Your task to perform on an android device: empty trash in google photos Image 0: 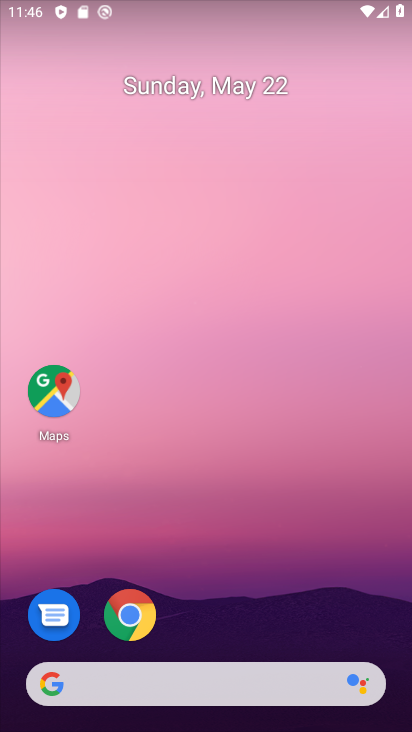
Step 0: drag from (216, 512) to (205, 117)
Your task to perform on an android device: empty trash in google photos Image 1: 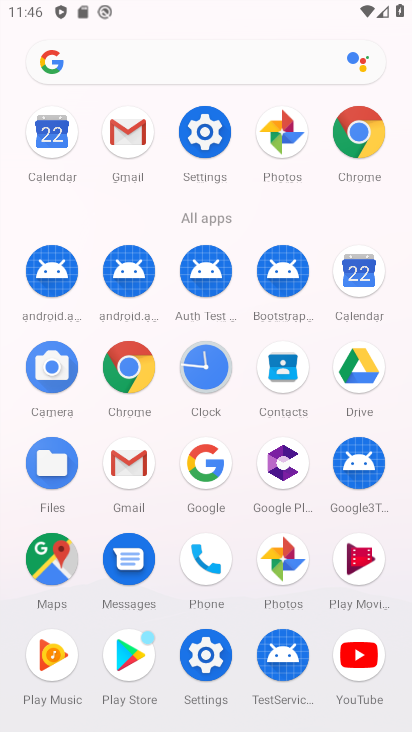
Step 1: click (279, 543)
Your task to perform on an android device: empty trash in google photos Image 2: 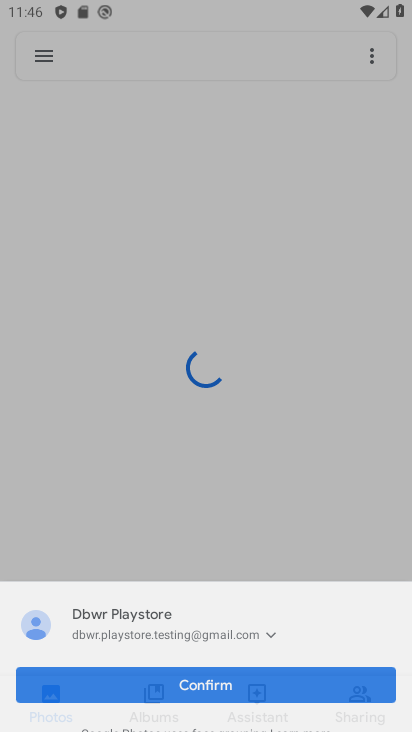
Step 2: click (38, 48)
Your task to perform on an android device: empty trash in google photos Image 3: 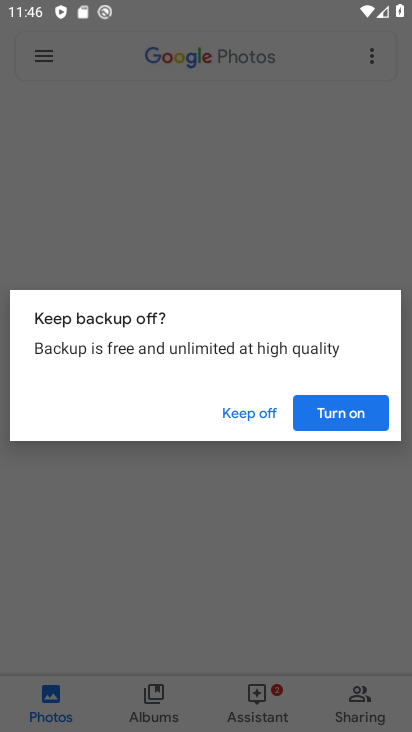
Step 3: click (252, 417)
Your task to perform on an android device: empty trash in google photos Image 4: 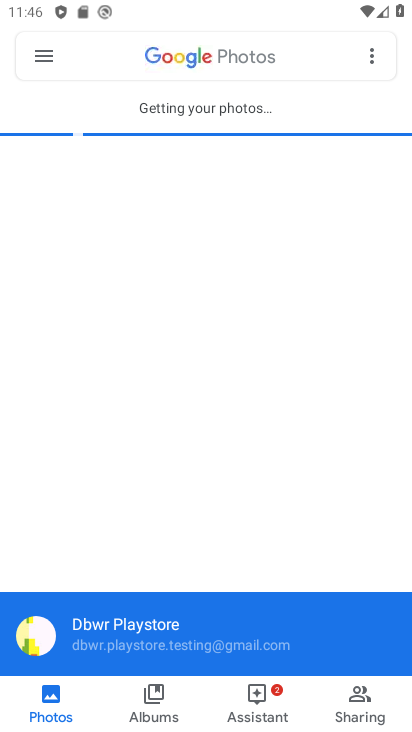
Step 4: click (37, 44)
Your task to perform on an android device: empty trash in google photos Image 5: 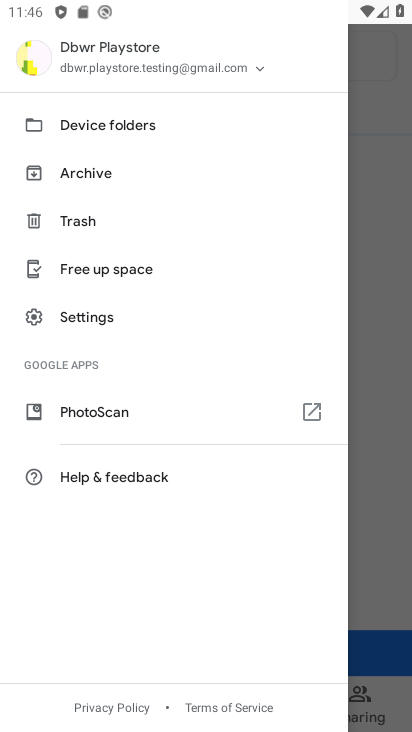
Step 5: click (129, 216)
Your task to perform on an android device: empty trash in google photos Image 6: 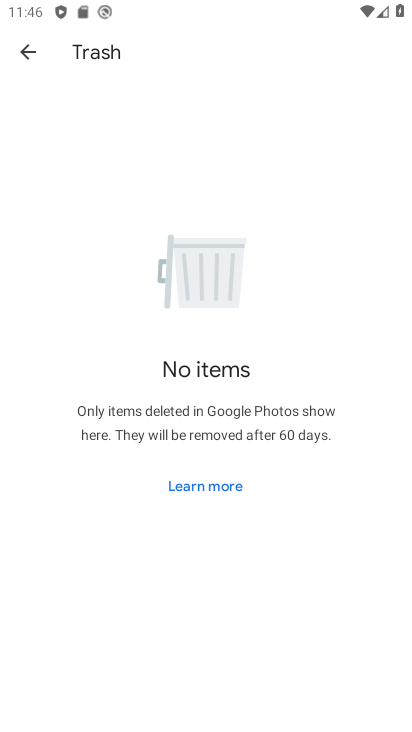
Step 6: task complete